Your task to perform on an android device: Open the web browser Image 0: 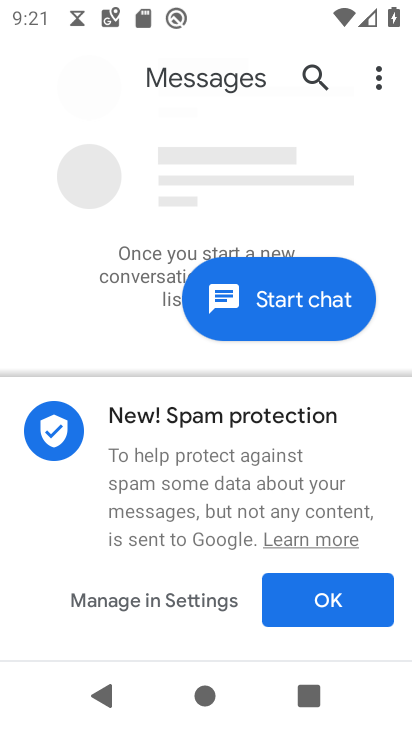
Step 0: drag from (324, 530) to (309, 207)
Your task to perform on an android device: Open the web browser Image 1: 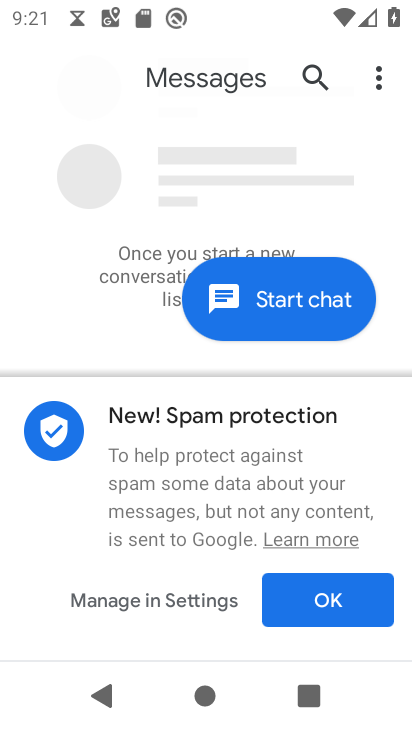
Step 1: press home button
Your task to perform on an android device: Open the web browser Image 2: 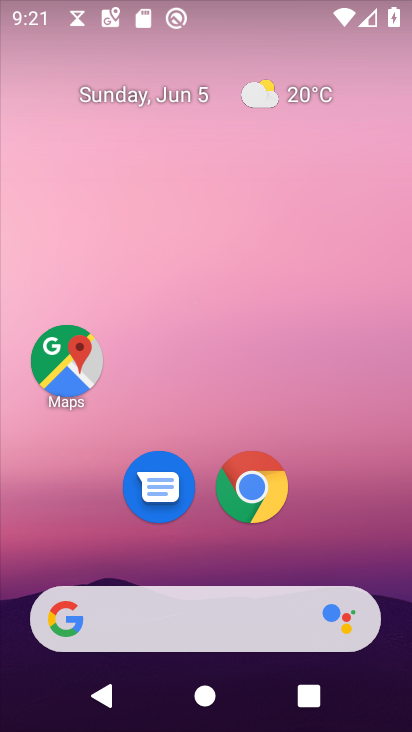
Step 2: click (247, 483)
Your task to perform on an android device: Open the web browser Image 3: 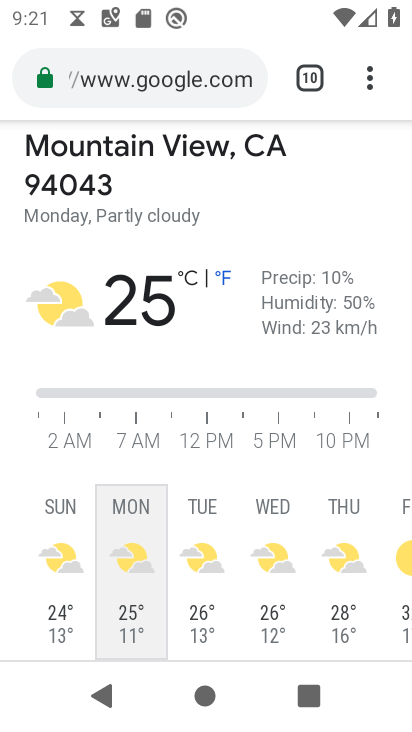
Step 3: task complete